Your task to perform on an android device: What's the weather? Image 0: 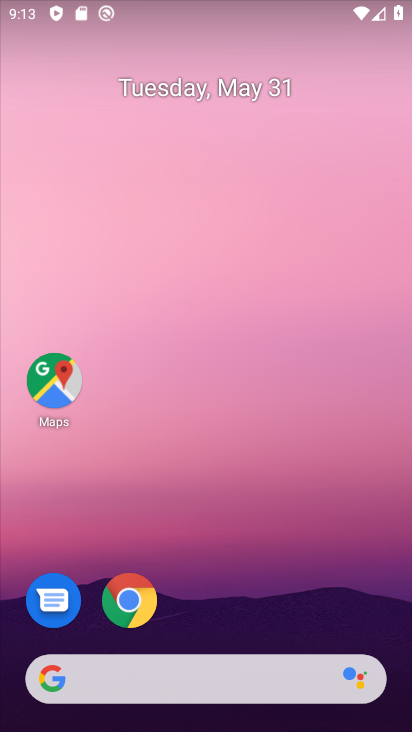
Step 0: click (168, 681)
Your task to perform on an android device: What's the weather? Image 1: 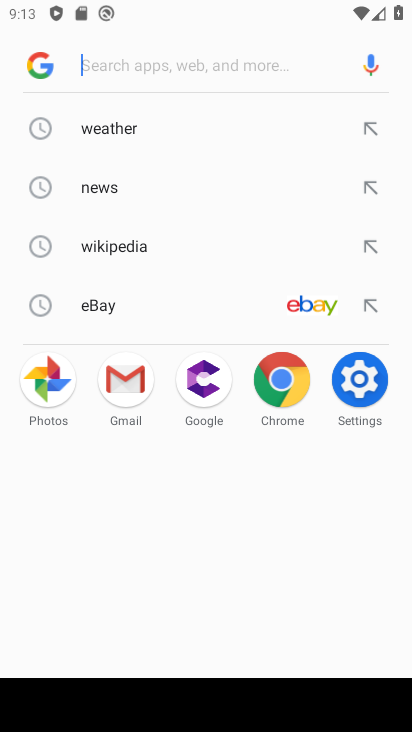
Step 1: click (103, 130)
Your task to perform on an android device: What's the weather? Image 2: 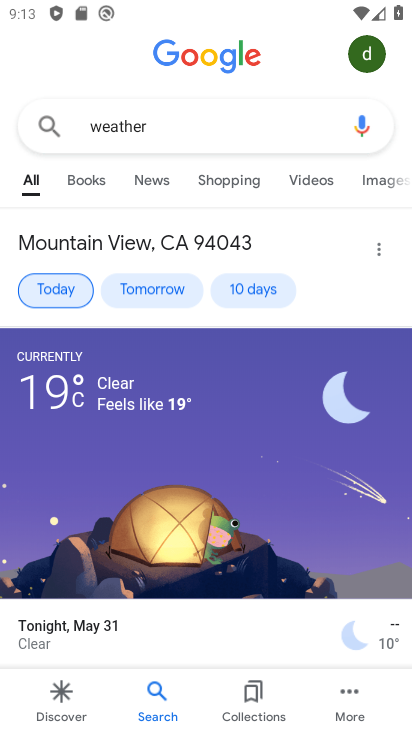
Step 2: task complete